Your task to perform on an android device: Open display settings Image 0: 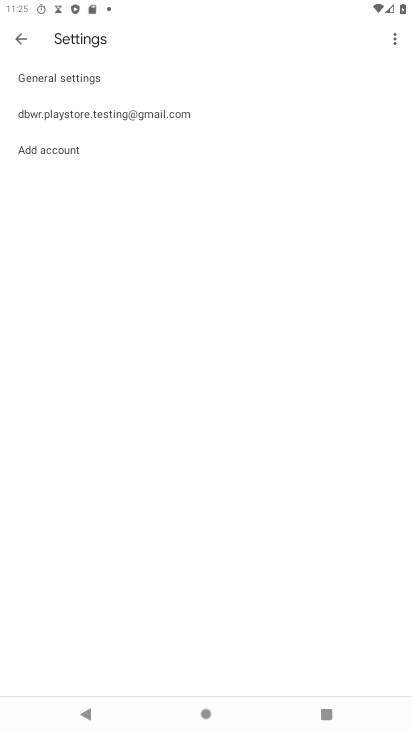
Step 0: press home button
Your task to perform on an android device: Open display settings Image 1: 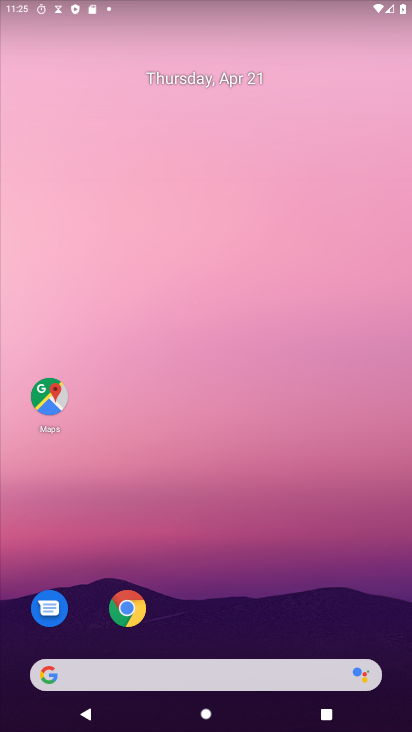
Step 1: drag from (202, 606) to (251, 236)
Your task to perform on an android device: Open display settings Image 2: 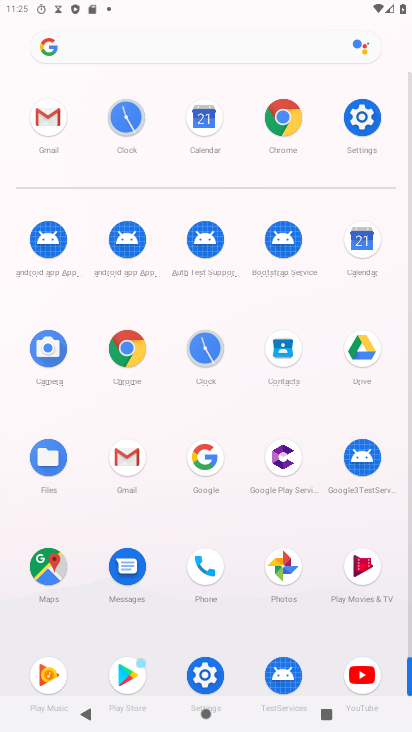
Step 2: click (198, 681)
Your task to perform on an android device: Open display settings Image 3: 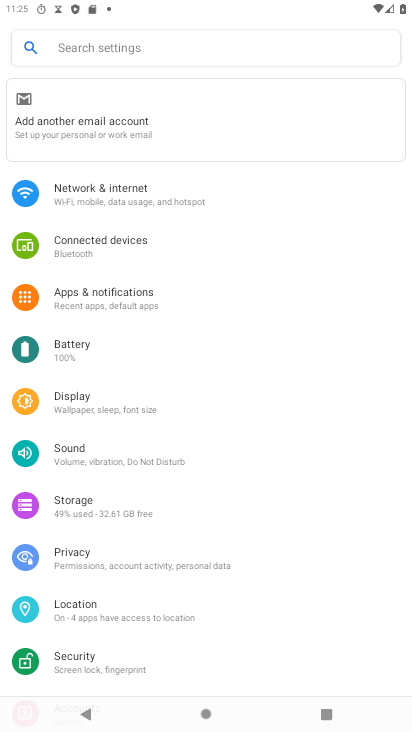
Step 3: click (222, 400)
Your task to perform on an android device: Open display settings Image 4: 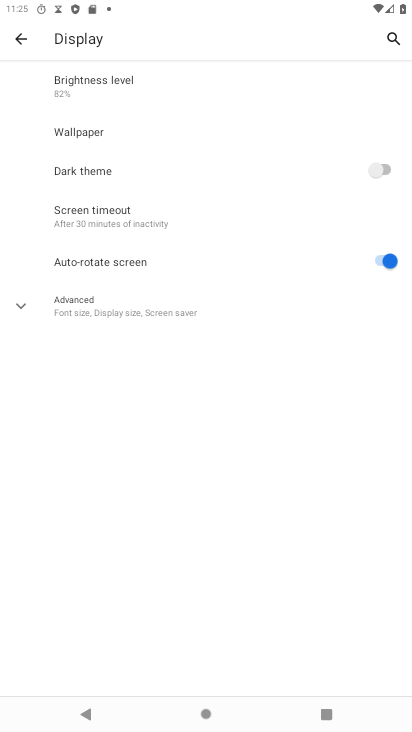
Step 4: task complete